Your task to perform on an android device: Open CNN.com Image 0: 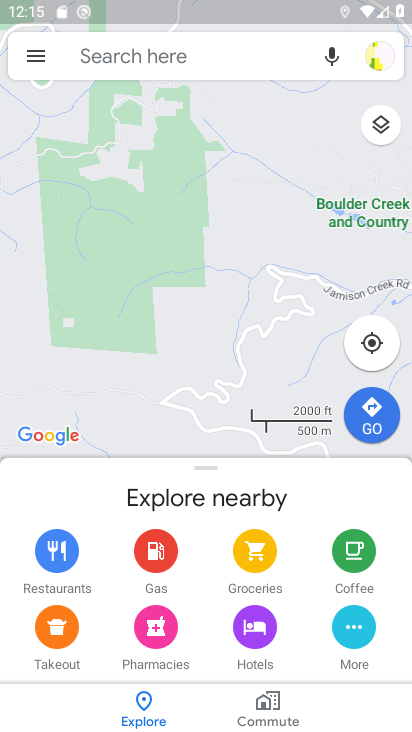
Step 0: press home button
Your task to perform on an android device: Open CNN.com Image 1: 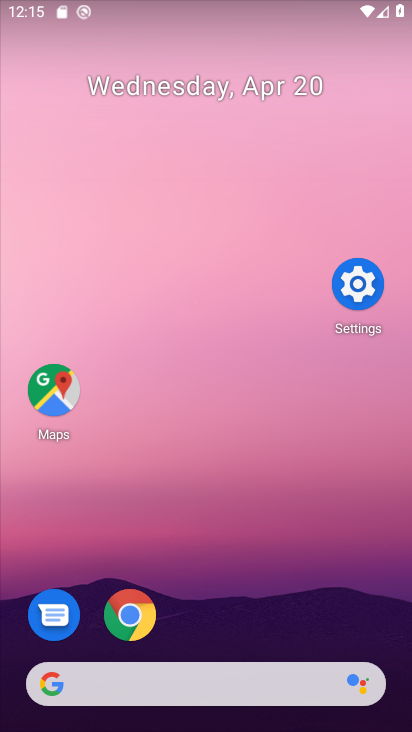
Step 1: click (124, 612)
Your task to perform on an android device: Open CNN.com Image 2: 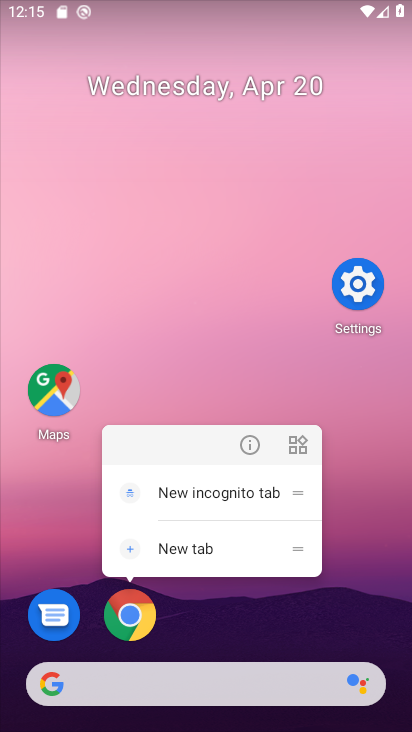
Step 2: click (247, 448)
Your task to perform on an android device: Open CNN.com Image 3: 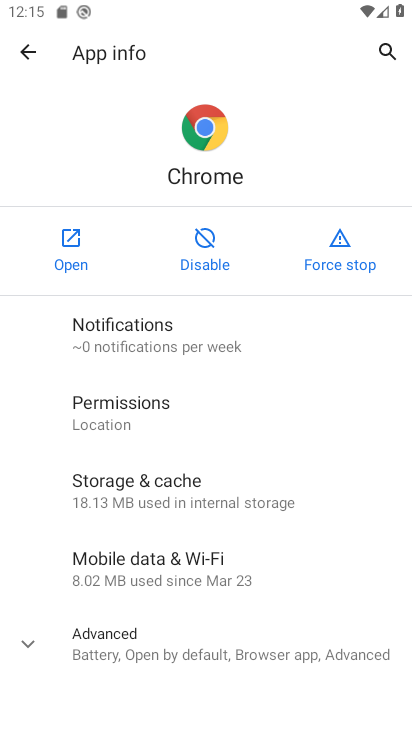
Step 3: click (82, 244)
Your task to perform on an android device: Open CNN.com Image 4: 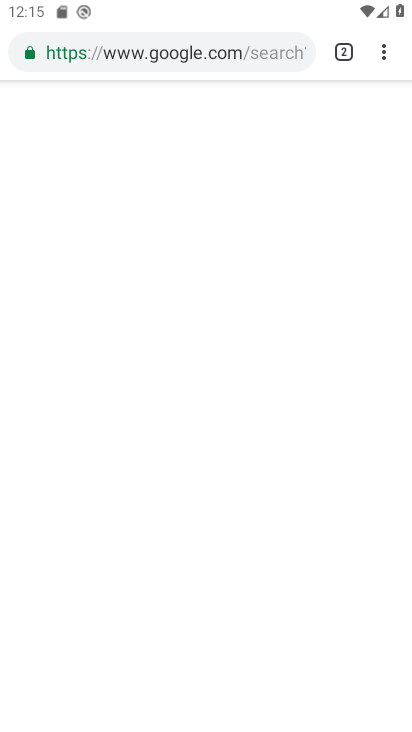
Step 4: click (202, 65)
Your task to perform on an android device: Open CNN.com Image 5: 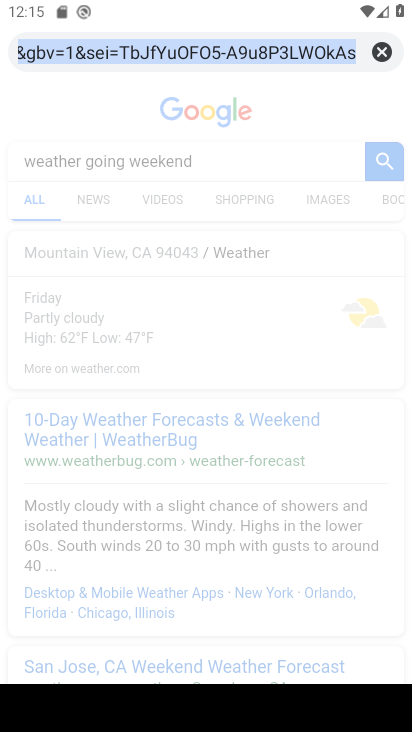
Step 5: click (384, 42)
Your task to perform on an android device: Open CNN.com Image 6: 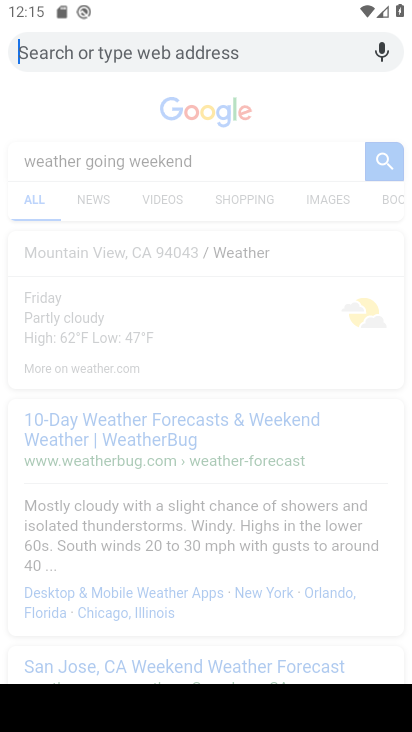
Step 6: type "cnn"
Your task to perform on an android device: Open CNN.com Image 7: 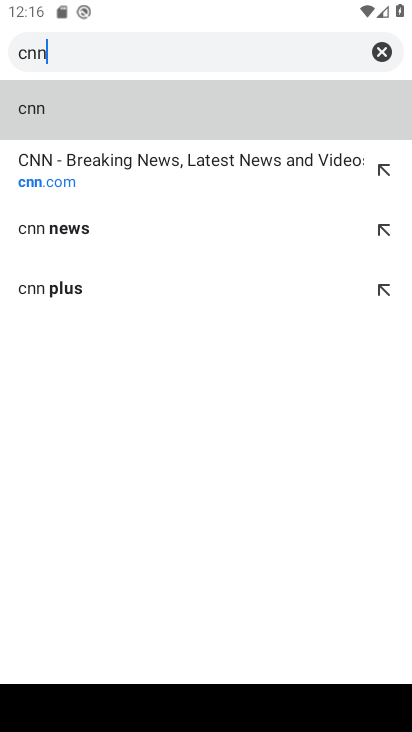
Step 7: click (73, 95)
Your task to perform on an android device: Open CNN.com Image 8: 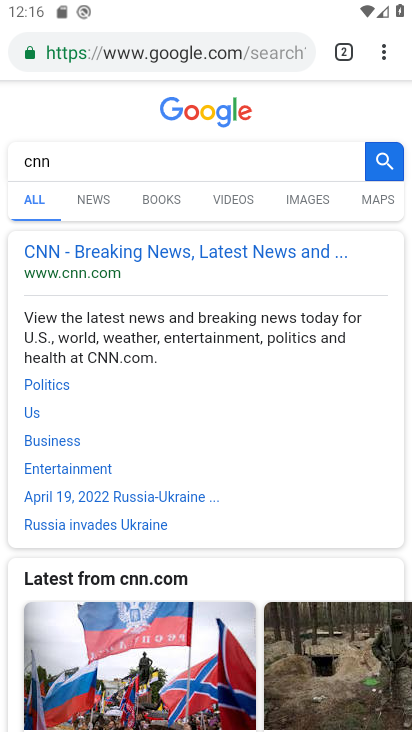
Step 8: click (93, 252)
Your task to perform on an android device: Open CNN.com Image 9: 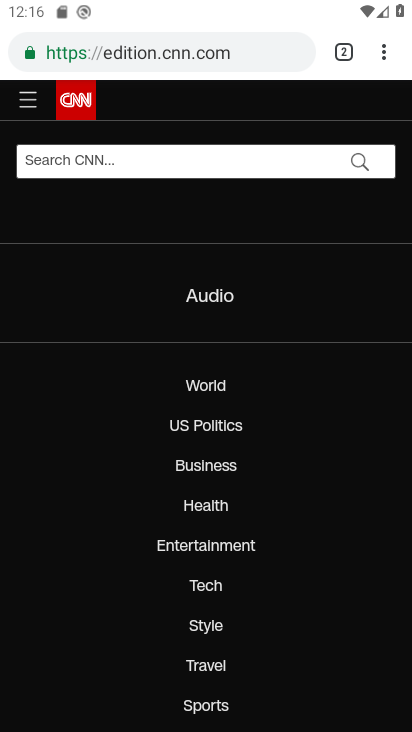
Step 9: task complete